Your task to perform on an android device: turn on location history Image 0: 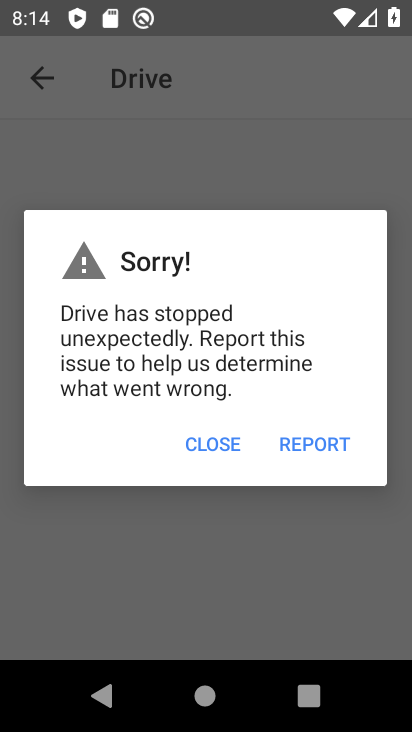
Step 0: press home button
Your task to perform on an android device: turn on location history Image 1: 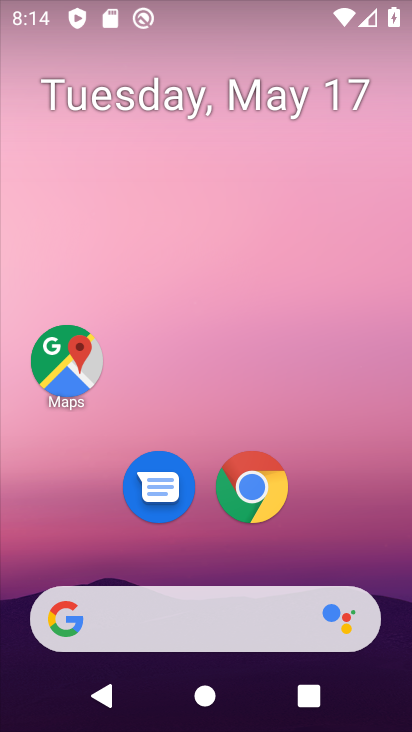
Step 1: drag from (201, 658) to (238, 243)
Your task to perform on an android device: turn on location history Image 2: 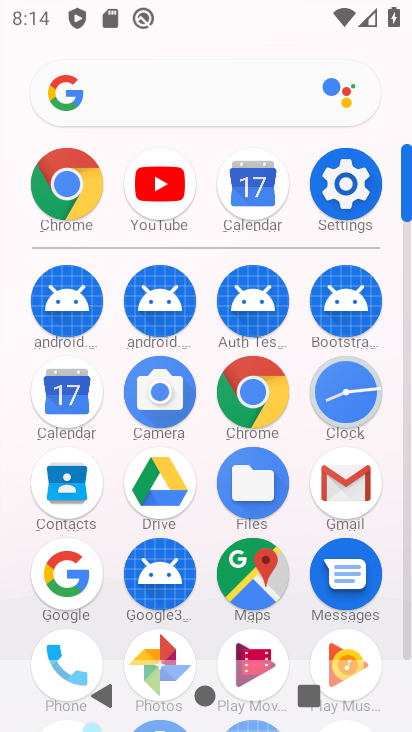
Step 2: click (349, 180)
Your task to perform on an android device: turn on location history Image 3: 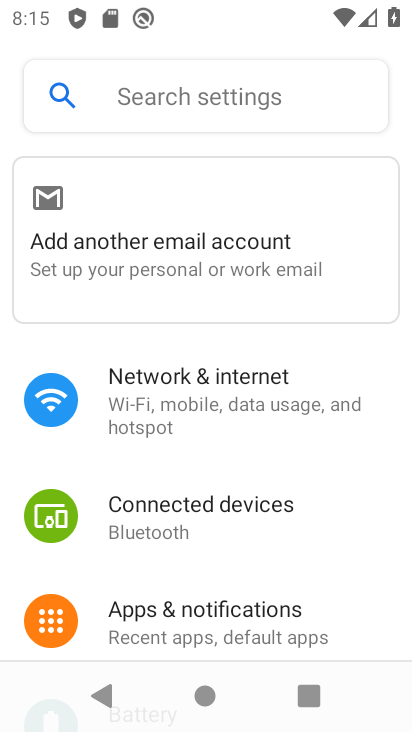
Step 3: click (174, 91)
Your task to perform on an android device: turn on location history Image 4: 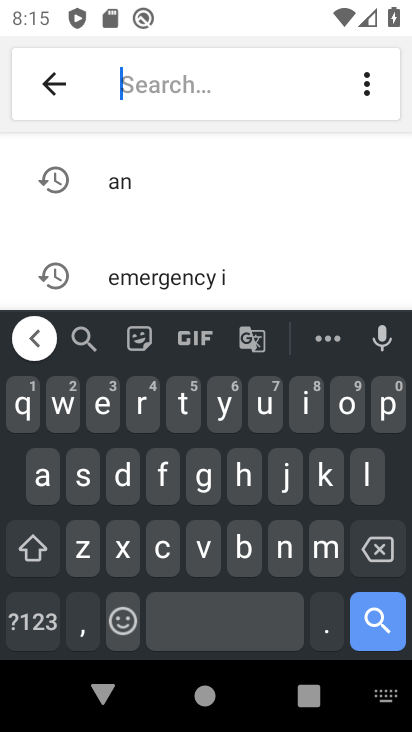
Step 4: click (373, 463)
Your task to perform on an android device: turn on location history Image 5: 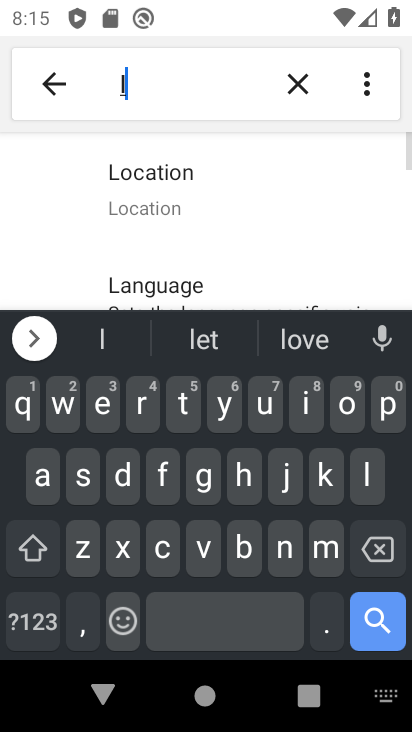
Step 5: click (156, 194)
Your task to perform on an android device: turn on location history Image 6: 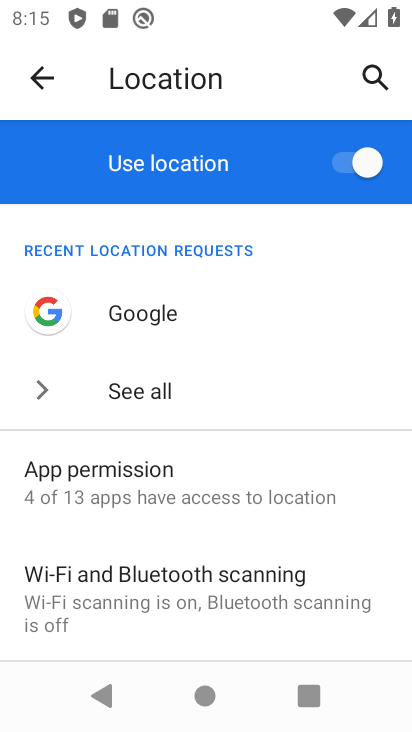
Step 6: drag from (130, 532) to (241, 290)
Your task to perform on an android device: turn on location history Image 7: 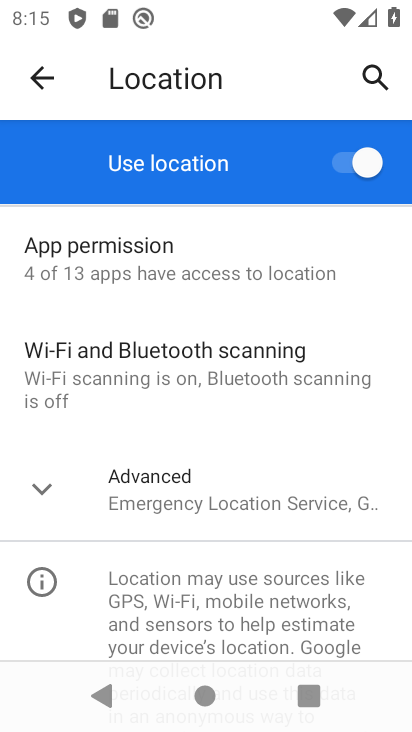
Step 7: click (37, 526)
Your task to perform on an android device: turn on location history Image 8: 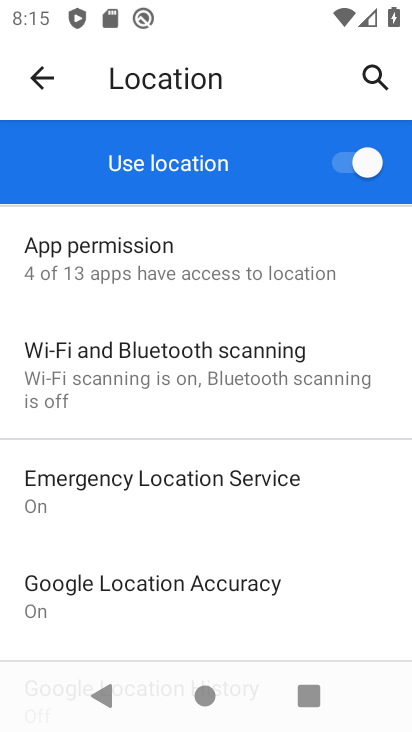
Step 8: drag from (144, 551) to (205, 297)
Your task to perform on an android device: turn on location history Image 9: 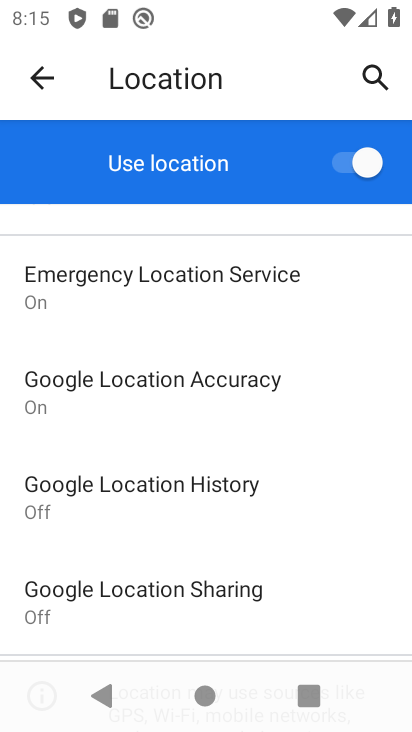
Step 9: drag from (184, 582) to (197, 537)
Your task to perform on an android device: turn on location history Image 10: 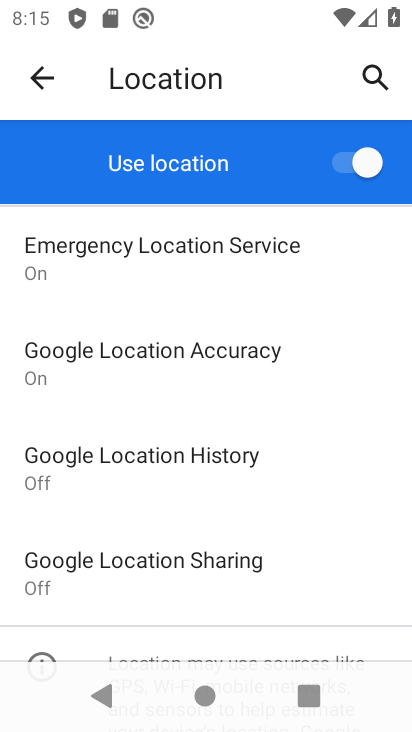
Step 10: click (203, 443)
Your task to perform on an android device: turn on location history Image 11: 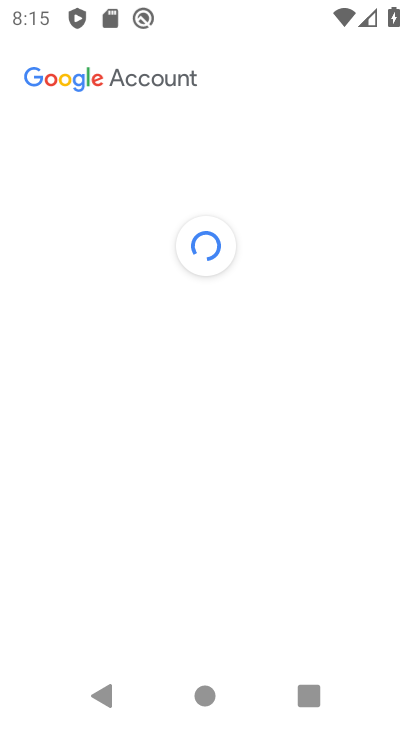
Step 11: task complete